Your task to perform on an android device: turn pop-ups off in chrome Image 0: 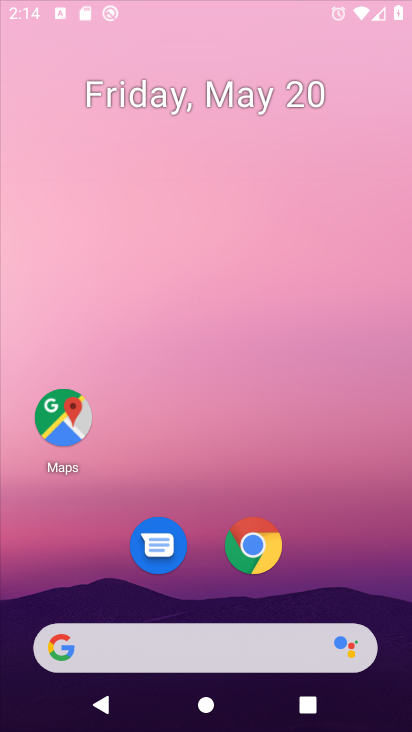
Step 0: drag from (316, 630) to (361, 83)
Your task to perform on an android device: turn pop-ups off in chrome Image 1: 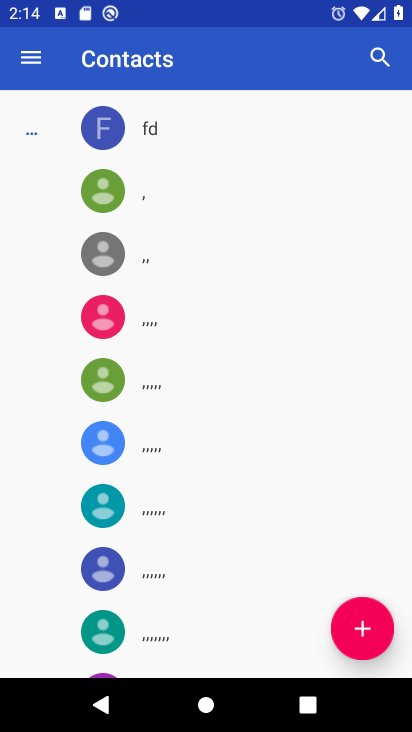
Step 1: press home button
Your task to perform on an android device: turn pop-ups off in chrome Image 2: 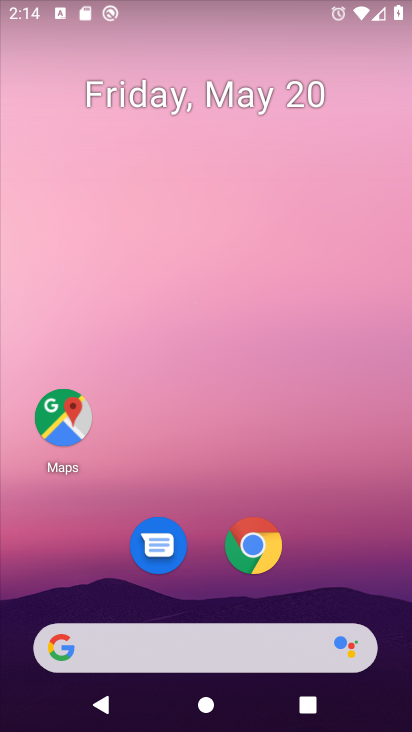
Step 2: drag from (298, 618) to (281, 58)
Your task to perform on an android device: turn pop-ups off in chrome Image 3: 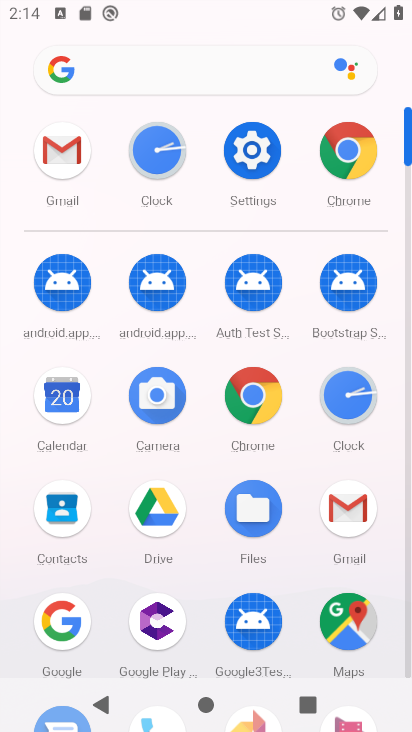
Step 3: click (246, 392)
Your task to perform on an android device: turn pop-ups off in chrome Image 4: 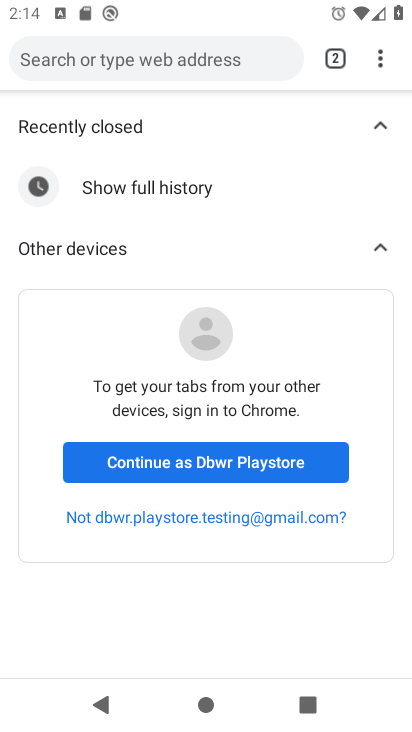
Step 4: click (372, 57)
Your task to perform on an android device: turn pop-ups off in chrome Image 5: 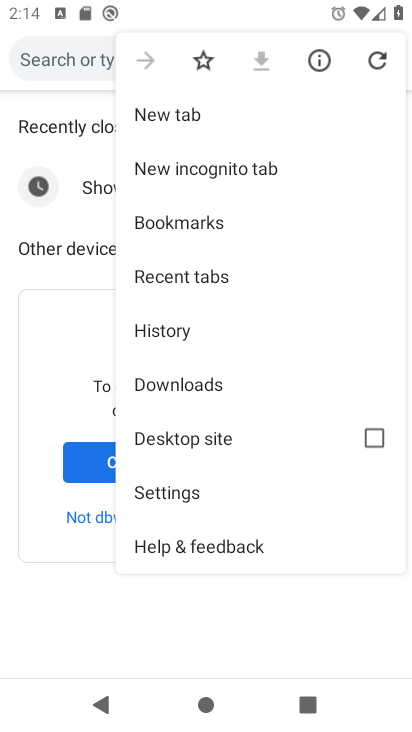
Step 5: click (209, 492)
Your task to perform on an android device: turn pop-ups off in chrome Image 6: 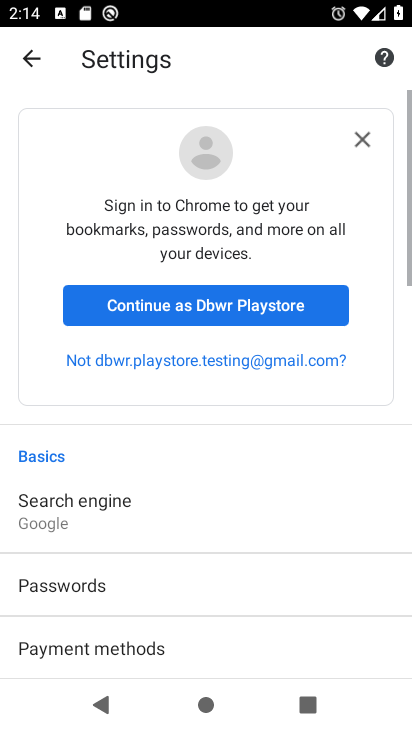
Step 6: drag from (306, 669) to (279, 91)
Your task to perform on an android device: turn pop-ups off in chrome Image 7: 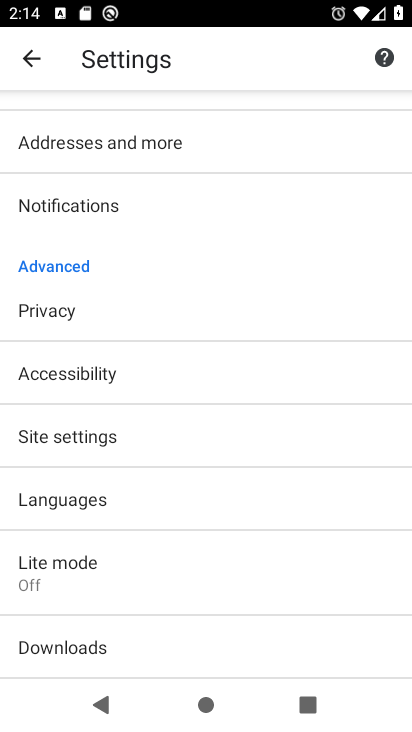
Step 7: click (183, 449)
Your task to perform on an android device: turn pop-ups off in chrome Image 8: 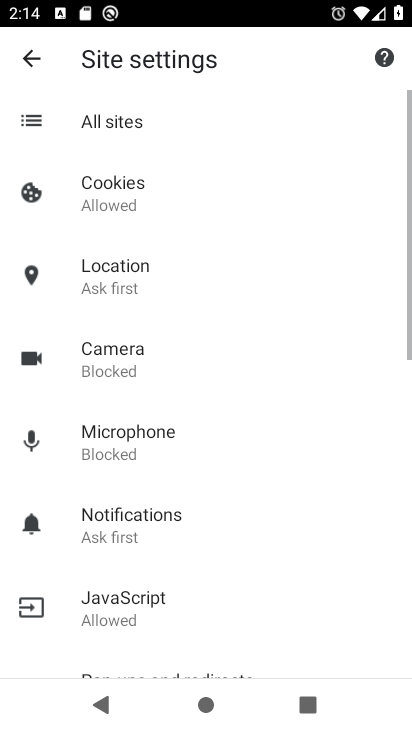
Step 8: drag from (296, 573) to (308, 143)
Your task to perform on an android device: turn pop-ups off in chrome Image 9: 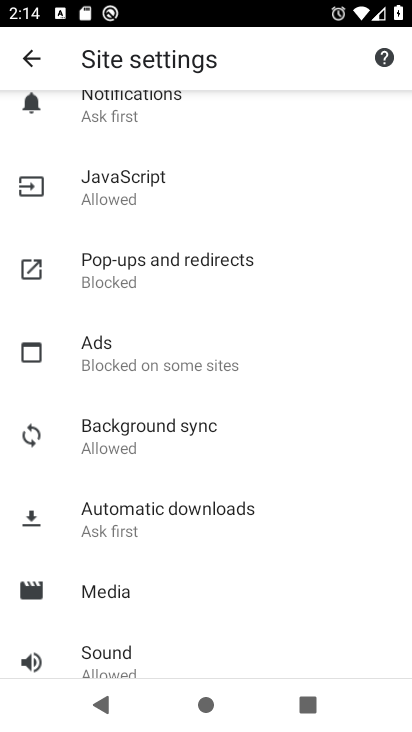
Step 9: click (193, 259)
Your task to perform on an android device: turn pop-ups off in chrome Image 10: 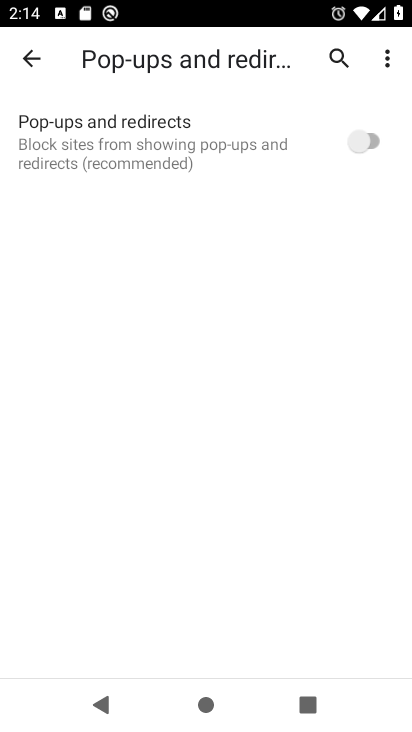
Step 10: task complete